Your task to perform on an android device: Open Youtube and go to "Your channel" Image 0: 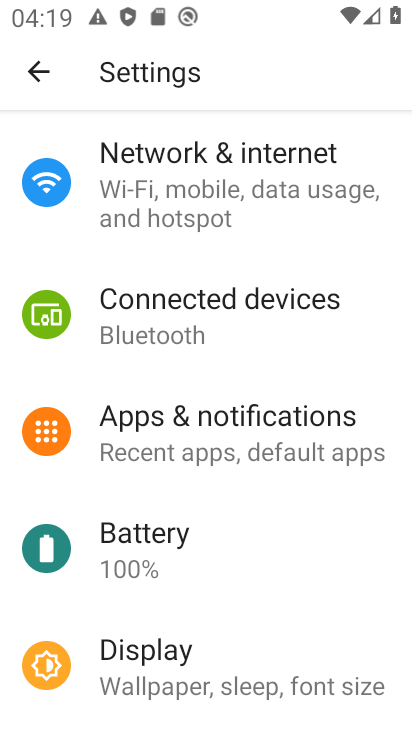
Step 0: click (29, 76)
Your task to perform on an android device: Open Youtube and go to "Your channel" Image 1: 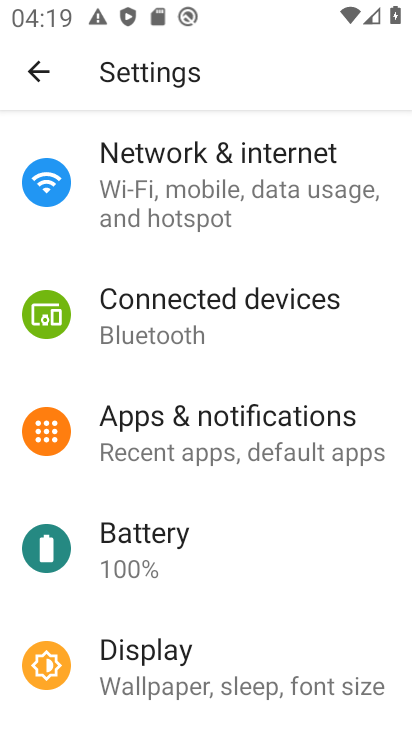
Step 1: click (29, 76)
Your task to perform on an android device: Open Youtube and go to "Your channel" Image 2: 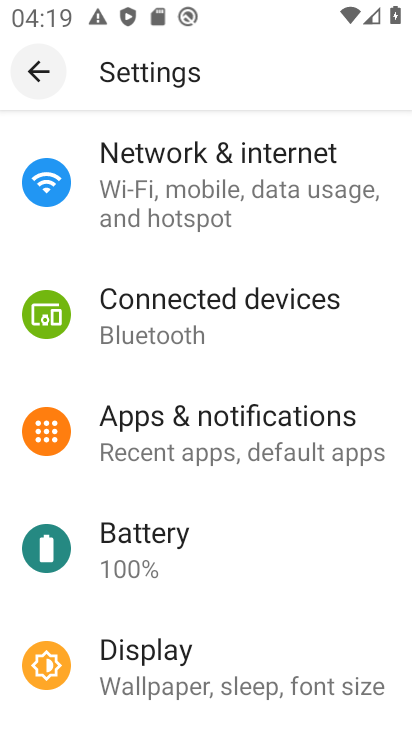
Step 2: click (20, 78)
Your task to perform on an android device: Open Youtube and go to "Your channel" Image 3: 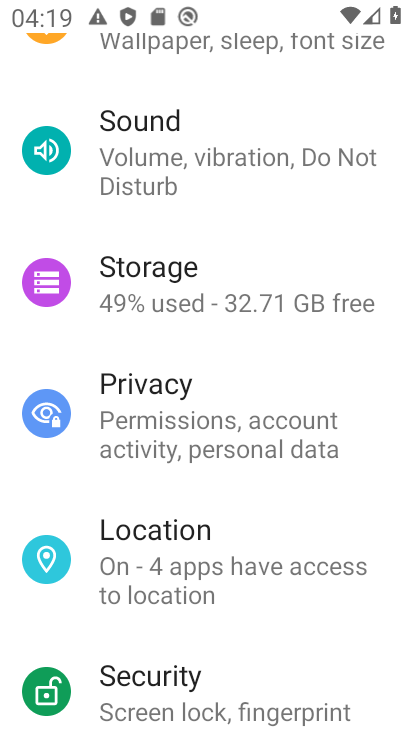
Step 3: press back button
Your task to perform on an android device: Open Youtube and go to "Your channel" Image 4: 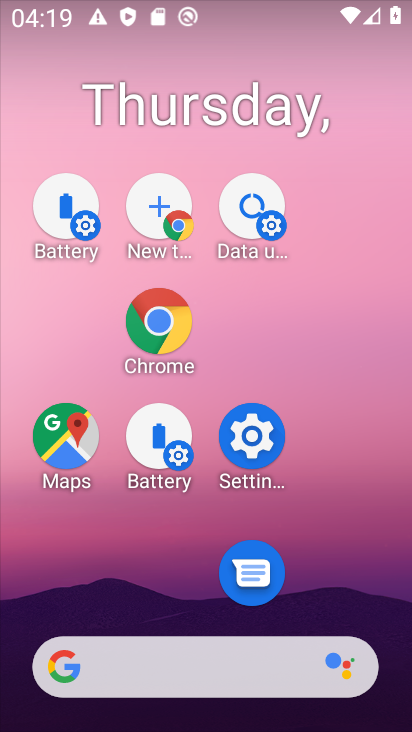
Step 4: drag from (264, 573) to (130, 86)
Your task to perform on an android device: Open Youtube and go to "Your channel" Image 5: 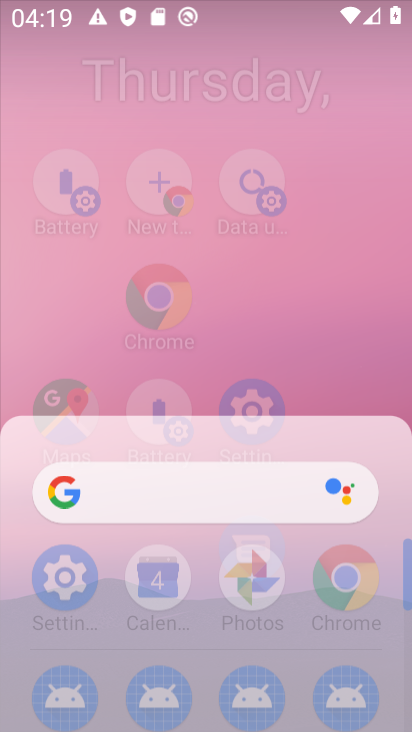
Step 5: drag from (168, 457) to (131, 175)
Your task to perform on an android device: Open Youtube and go to "Your channel" Image 6: 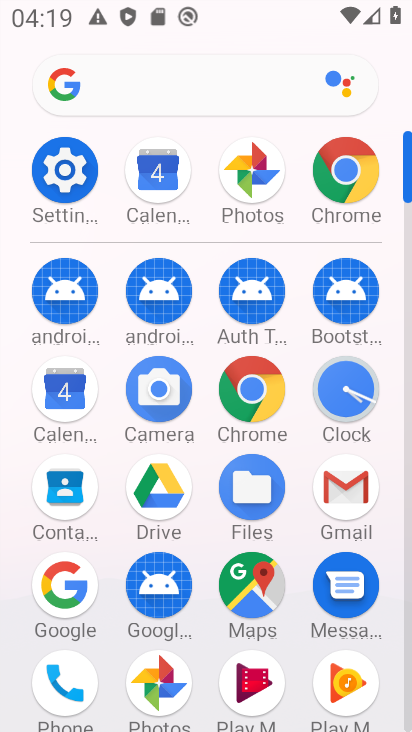
Step 6: drag from (184, 586) to (83, 206)
Your task to perform on an android device: Open Youtube and go to "Your channel" Image 7: 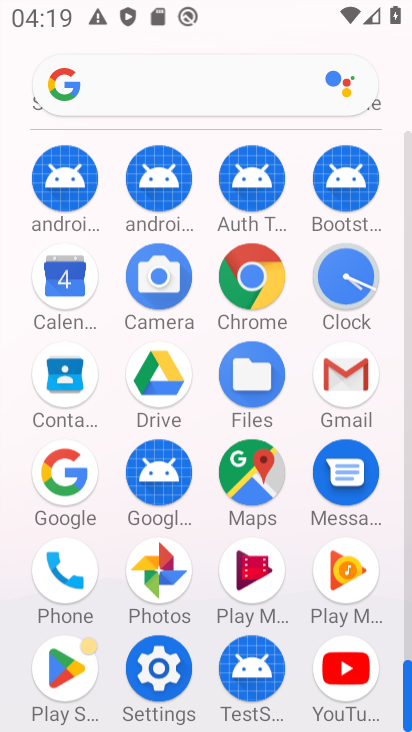
Step 7: drag from (112, 260) to (96, 144)
Your task to perform on an android device: Open Youtube and go to "Your channel" Image 8: 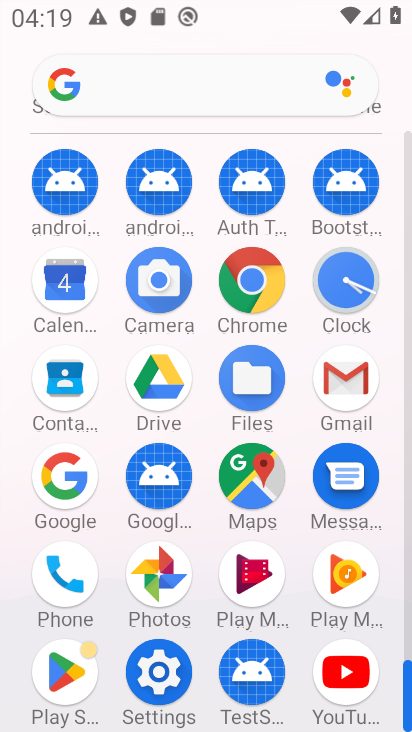
Step 8: drag from (175, 534) to (151, 157)
Your task to perform on an android device: Open Youtube and go to "Your channel" Image 9: 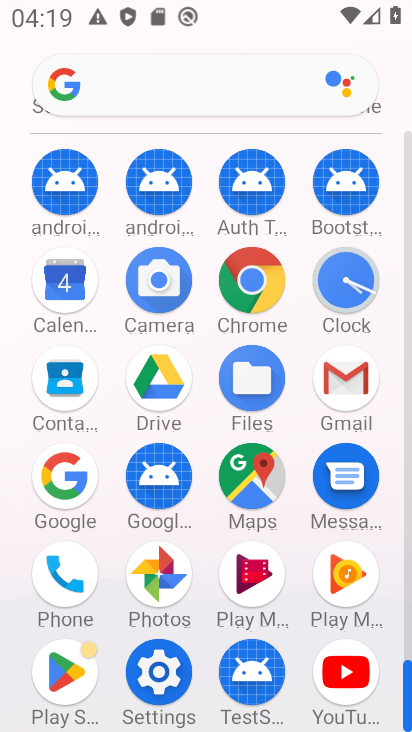
Step 9: click (354, 672)
Your task to perform on an android device: Open Youtube and go to "Your channel" Image 10: 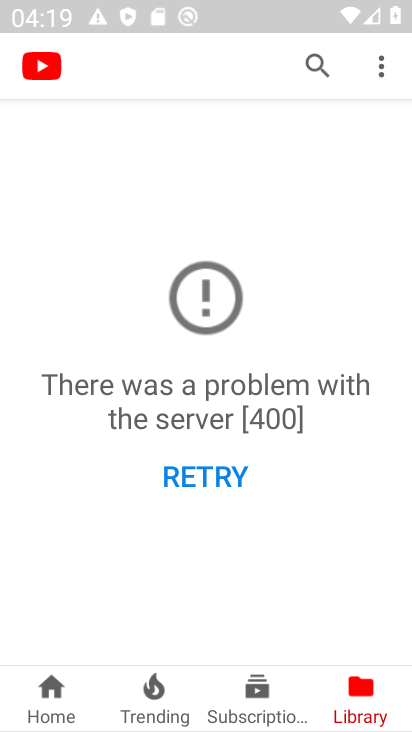
Step 10: task complete